Your task to perform on an android device: turn off location history Image 0: 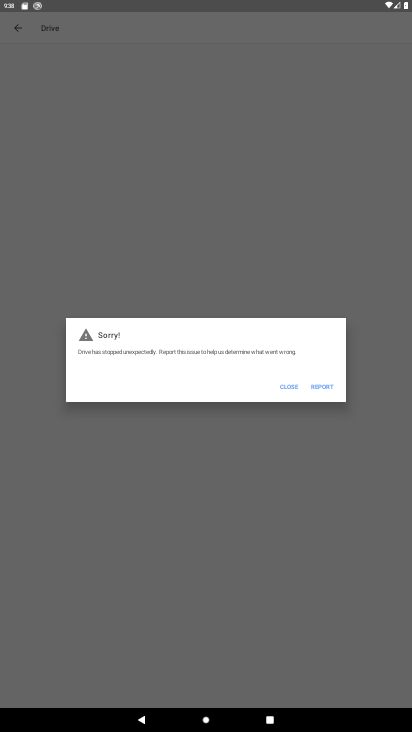
Step 0: press home button
Your task to perform on an android device: turn off location history Image 1: 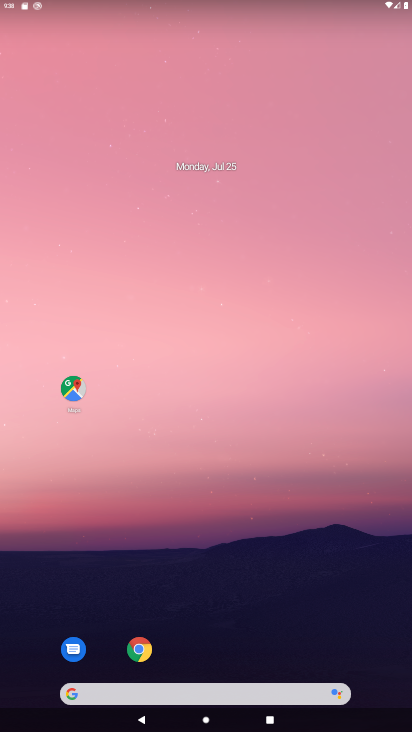
Step 1: drag from (195, 615) to (155, 24)
Your task to perform on an android device: turn off location history Image 2: 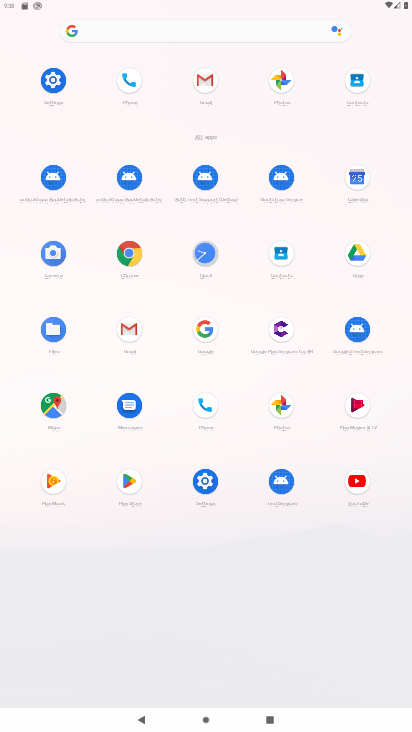
Step 2: click (205, 482)
Your task to perform on an android device: turn off location history Image 3: 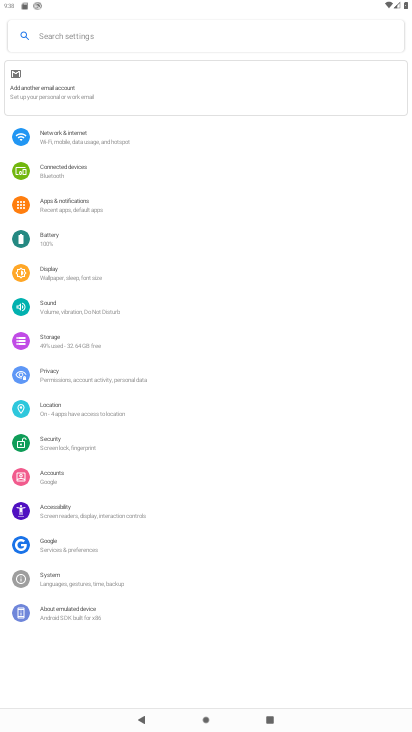
Step 3: click (87, 413)
Your task to perform on an android device: turn off location history Image 4: 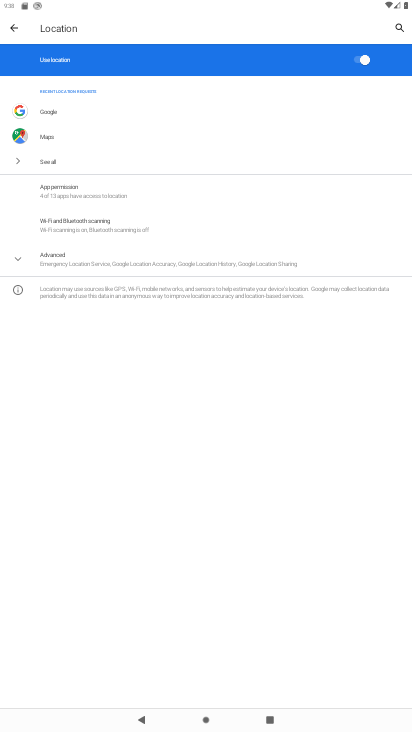
Step 4: click (83, 264)
Your task to perform on an android device: turn off location history Image 5: 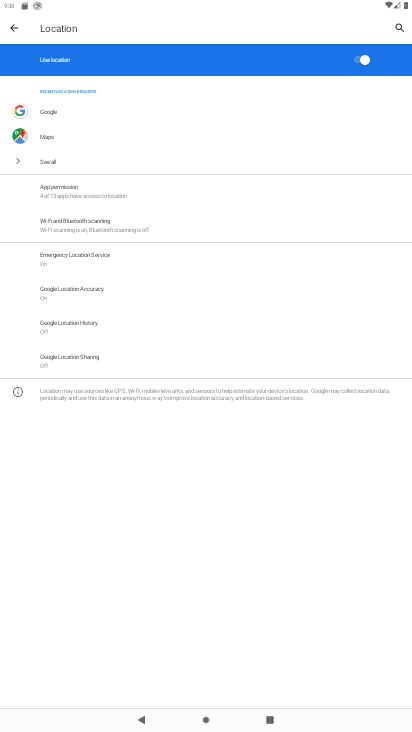
Step 5: click (82, 323)
Your task to perform on an android device: turn off location history Image 6: 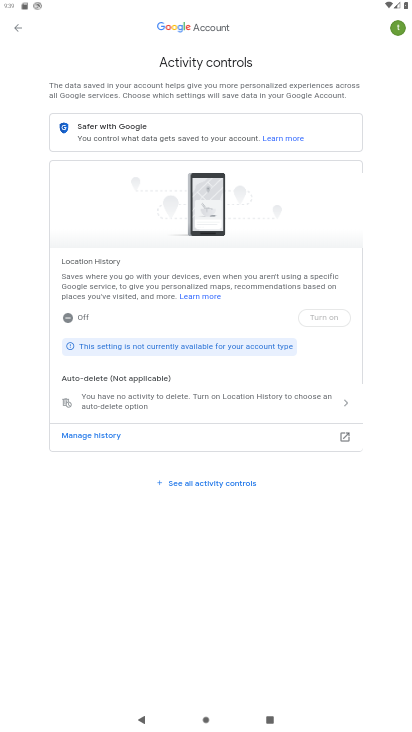
Step 6: task complete